Your task to perform on an android device: toggle data saver in the chrome app Image 0: 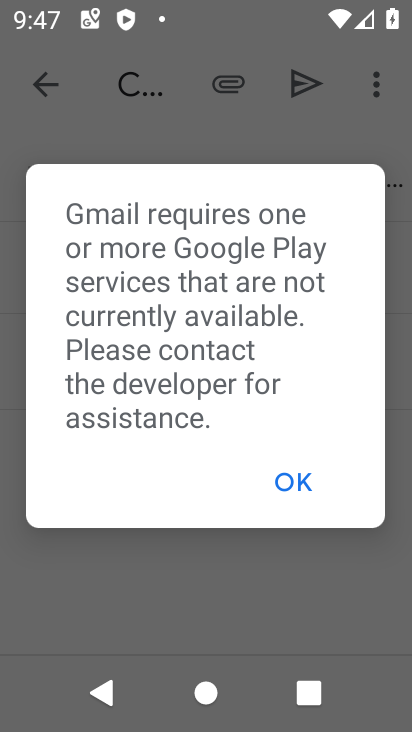
Step 0: press back button
Your task to perform on an android device: toggle data saver in the chrome app Image 1: 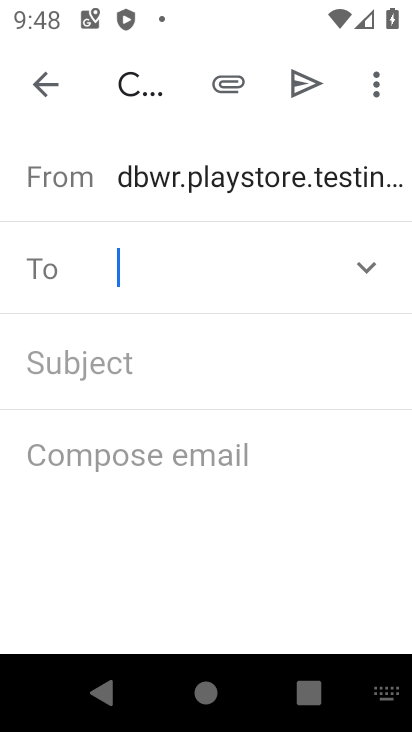
Step 1: press back button
Your task to perform on an android device: toggle data saver in the chrome app Image 2: 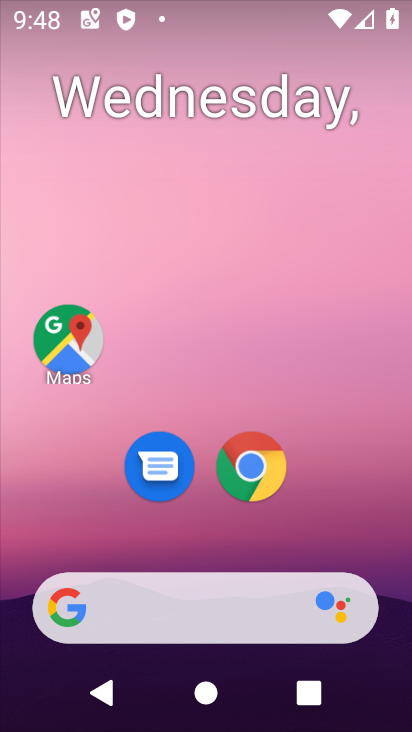
Step 2: click (263, 488)
Your task to perform on an android device: toggle data saver in the chrome app Image 3: 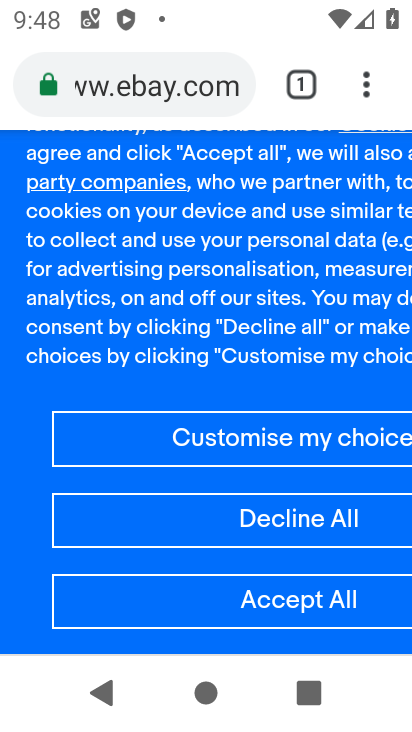
Step 3: click (364, 85)
Your task to perform on an android device: toggle data saver in the chrome app Image 4: 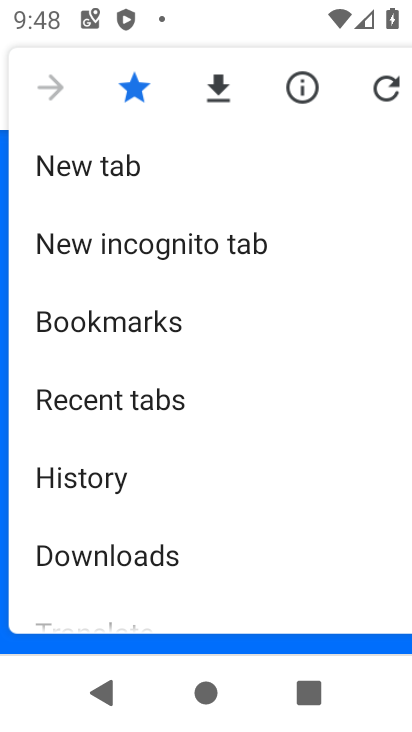
Step 4: drag from (109, 590) to (191, 275)
Your task to perform on an android device: toggle data saver in the chrome app Image 5: 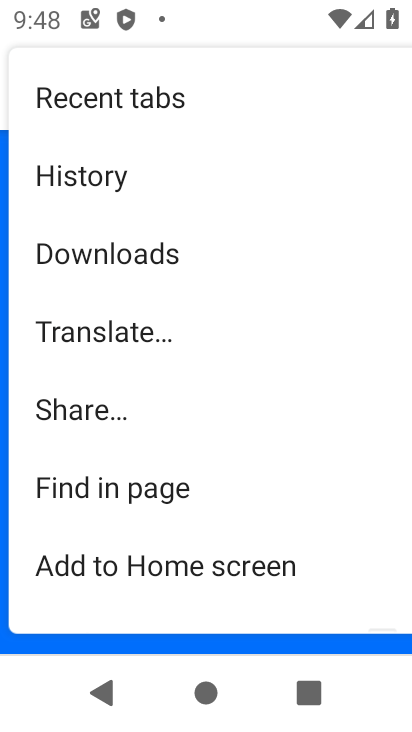
Step 5: drag from (191, 275) to (212, 135)
Your task to perform on an android device: toggle data saver in the chrome app Image 6: 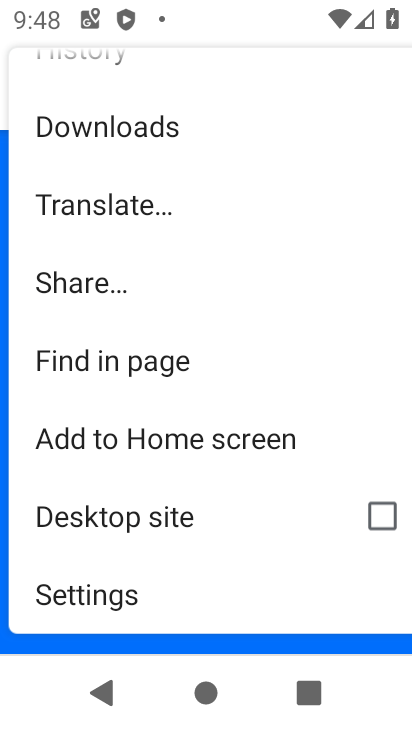
Step 6: click (75, 591)
Your task to perform on an android device: toggle data saver in the chrome app Image 7: 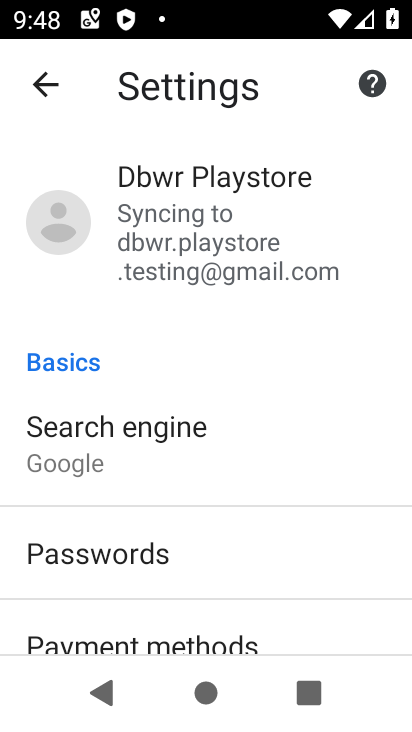
Step 7: drag from (101, 622) to (182, 76)
Your task to perform on an android device: toggle data saver in the chrome app Image 8: 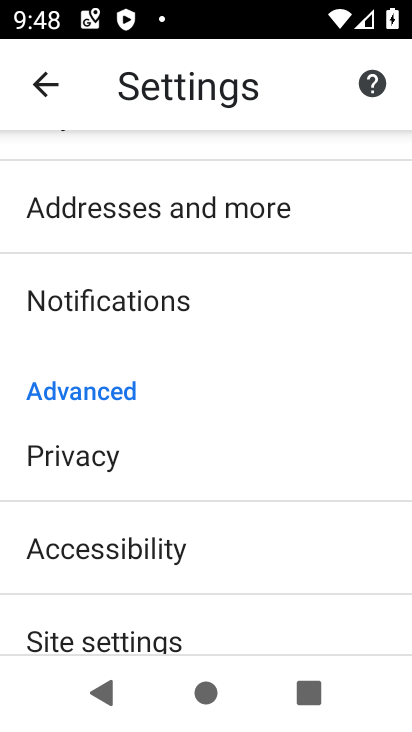
Step 8: drag from (213, 588) to (273, 270)
Your task to perform on an android device: toggle data saver in the chrome app Image 9: 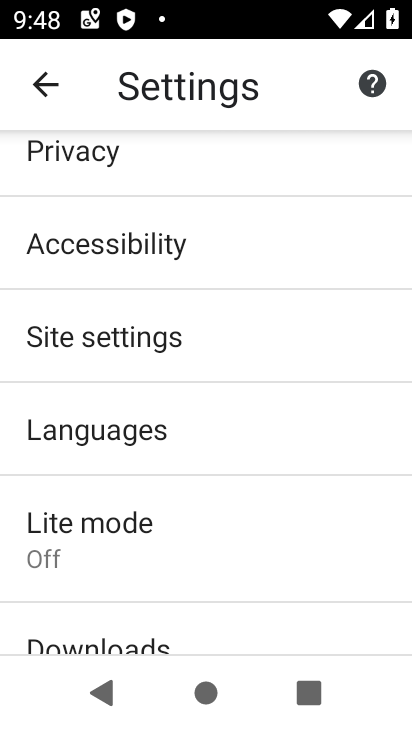
Step 9: click (79, 535)
Your task to perform on an android device: toggle data saver in the chrome app Image 10: 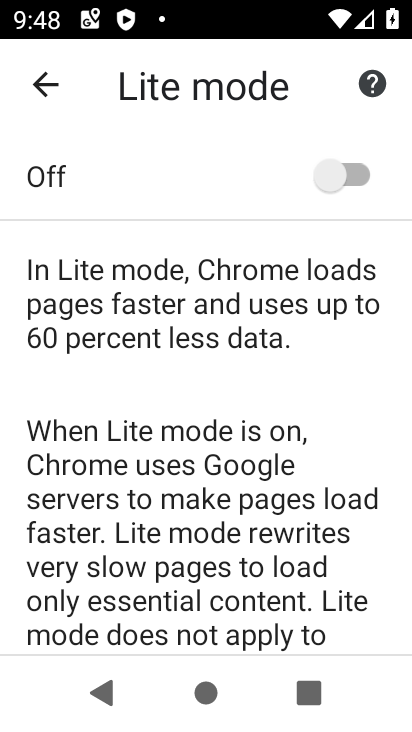
Step 10: click (341, 193)
Your task to perform on an android device: toggle data saver in the chrome app Image 11: 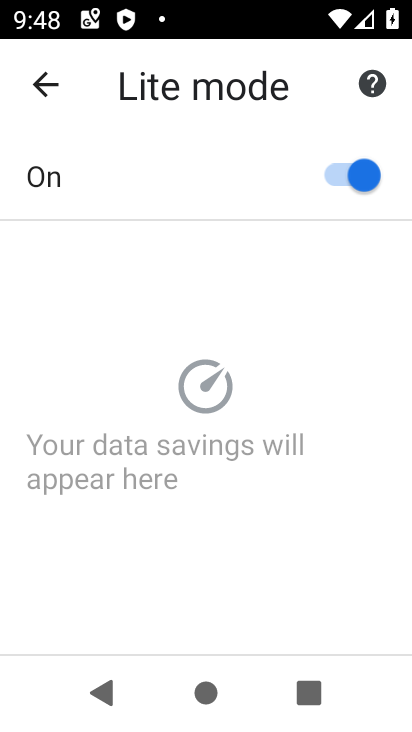
Step 11: task complete